Your task to perform on an android device: Search for flights from Mexico city to Zurich Image 0: 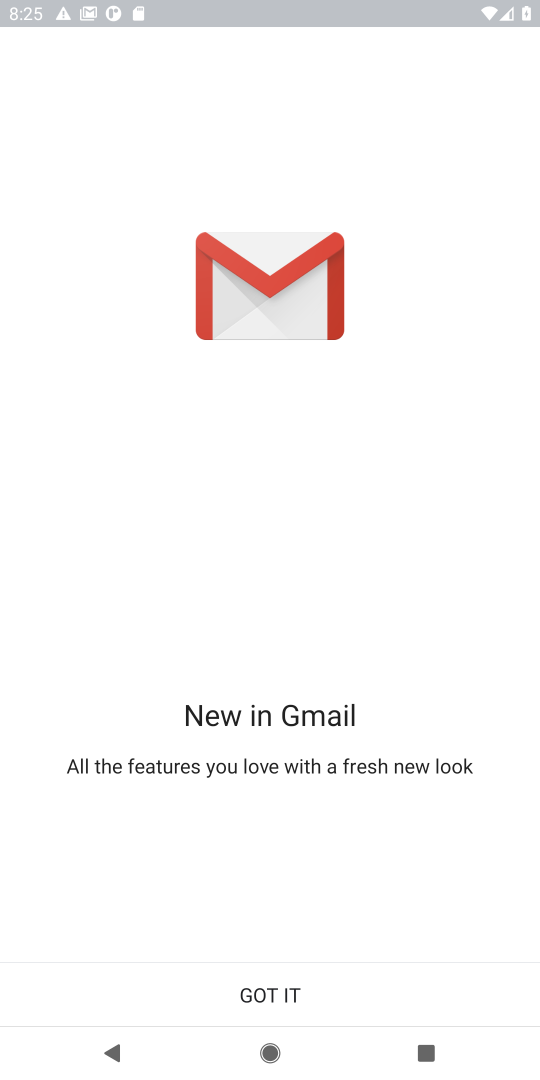
Step 0: press home button
Your task to perform on an android device: Search for flights from Mexico city to Zurich Image 1: 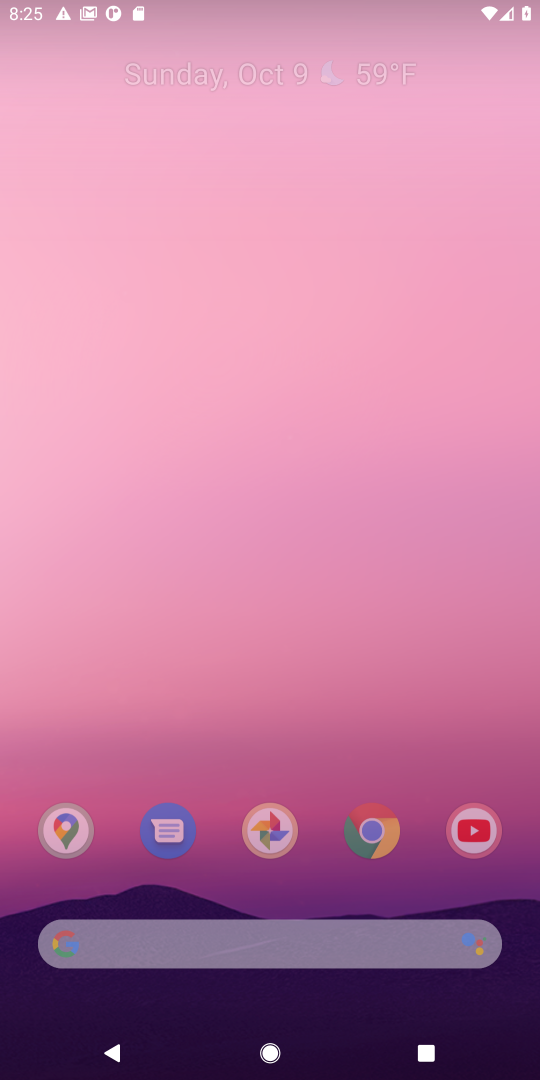
Step 1: press home button
Your task to perform on an android device: Search for flights from Mexico city to Zurich Image 2: 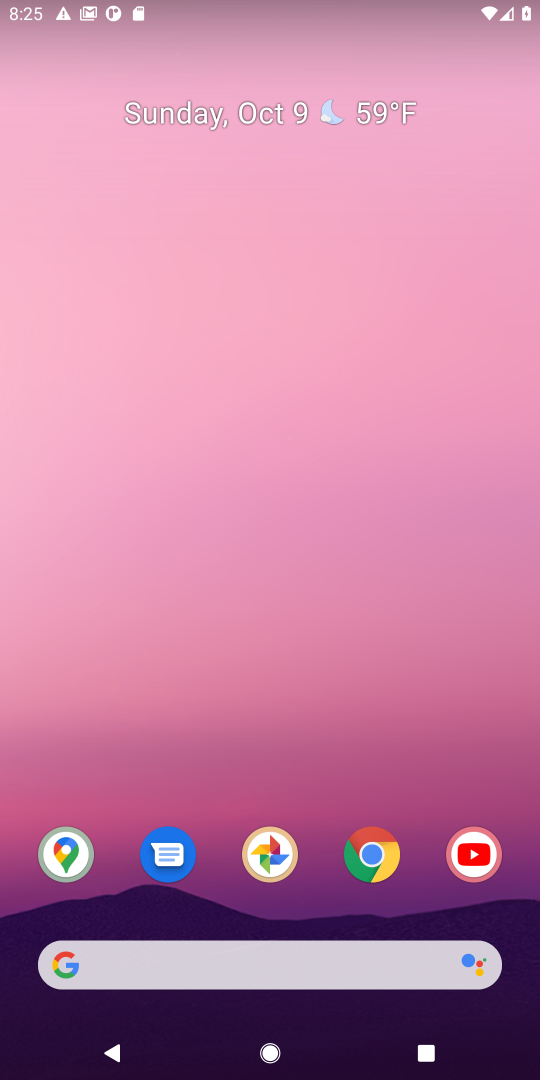
Step 2: drag from (297, 906) to (272, 46)
Your task to perform on an android device: Search for flights from Mexico city to Zurich Image 3: 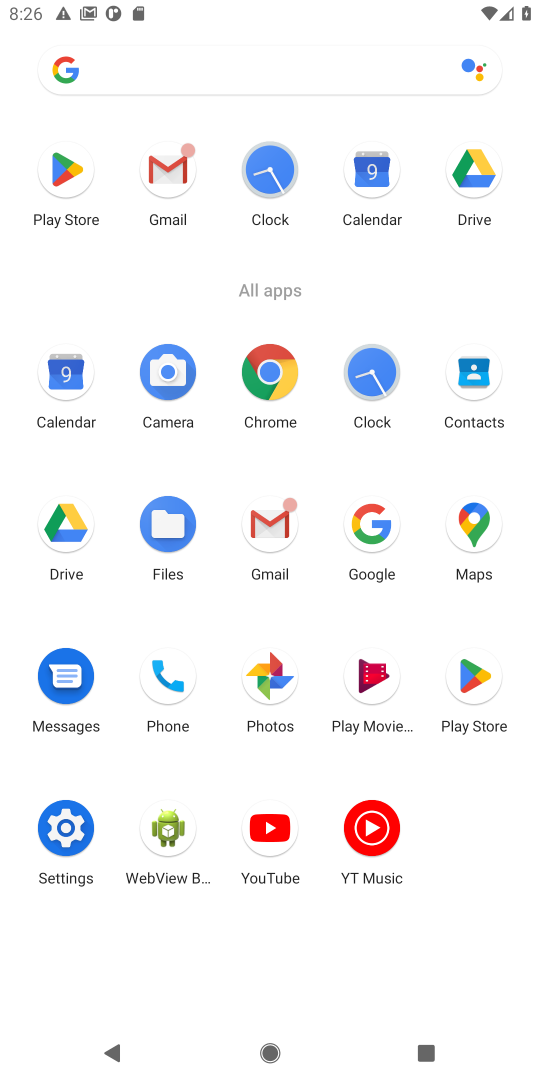
Step 3: click (274, 364)
Your task to perform on an android device: Search for flights from Mexico city to Zurich Image 4: 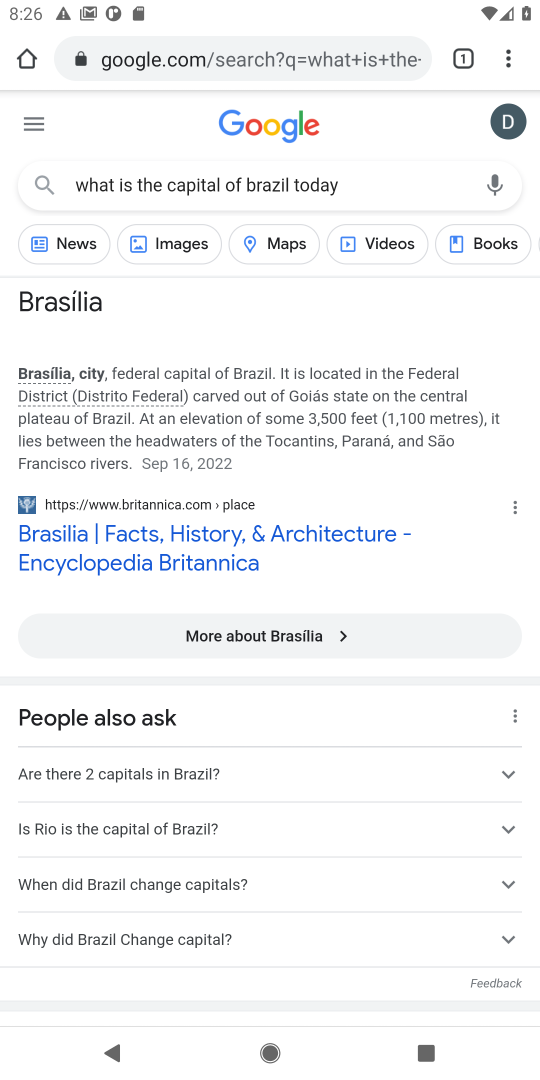
Step 4: click (366, 179)
Your task to perform on an android device: Search for flights from Mexico city to Zurich Image 5: 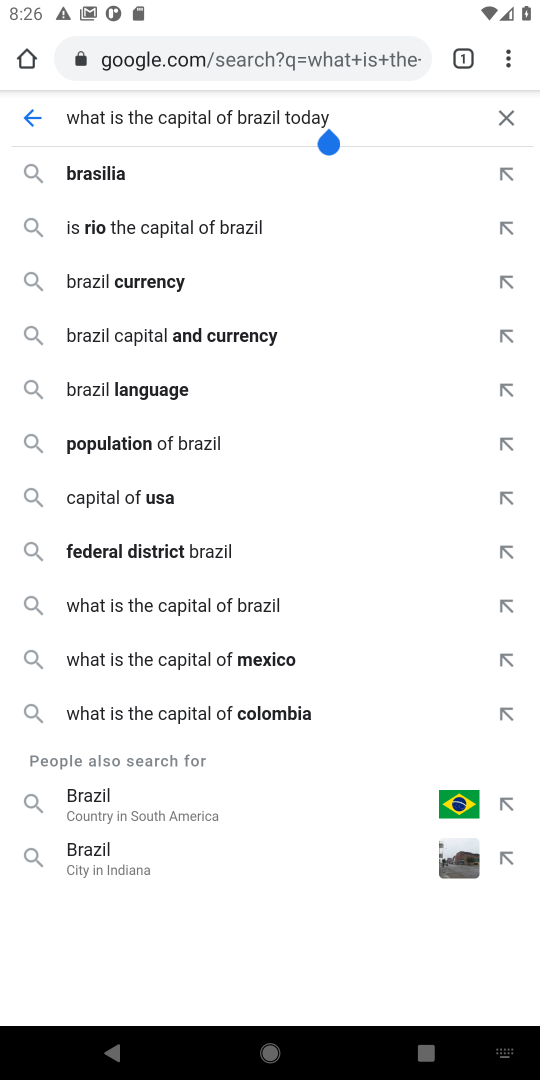
Step 5: click (504, 118)
Your task to perform on an android device: Search for flights from Mexico city to Zurich Image 6: 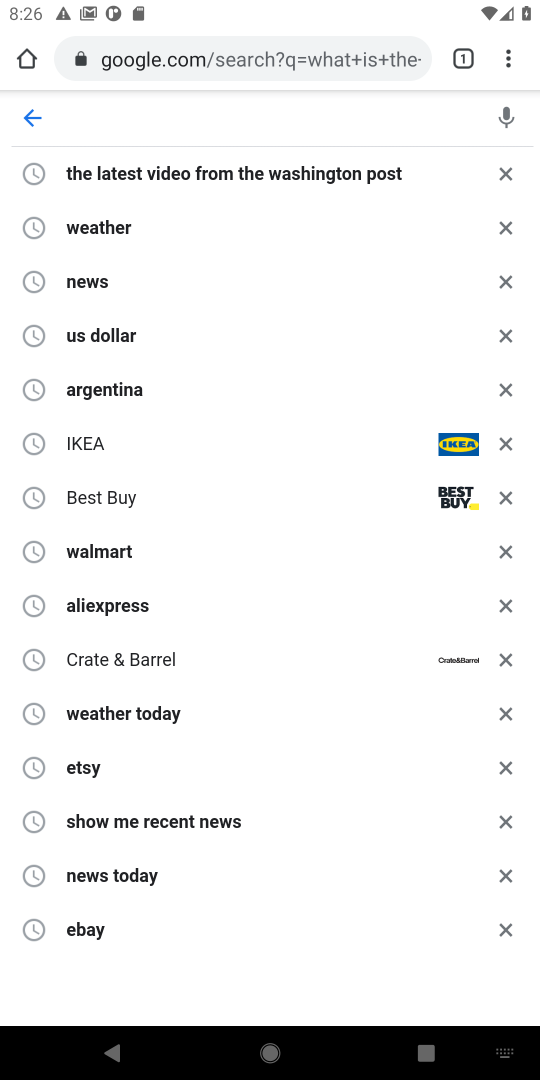
Step 6: type "flights from Mexico city to Zurich"
Your task to perform on an android device: Search for flights from Mexico city to Zurich Image 7: 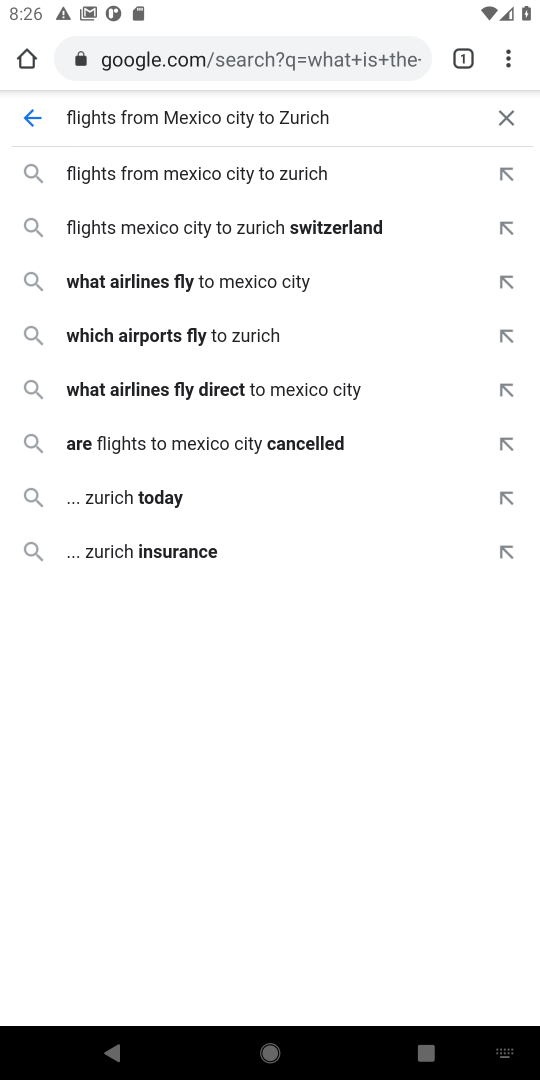
Step 7: click (228, 173)
Your task to perform on an android device: Search for flights from Mexico city to Zurich Image 8: 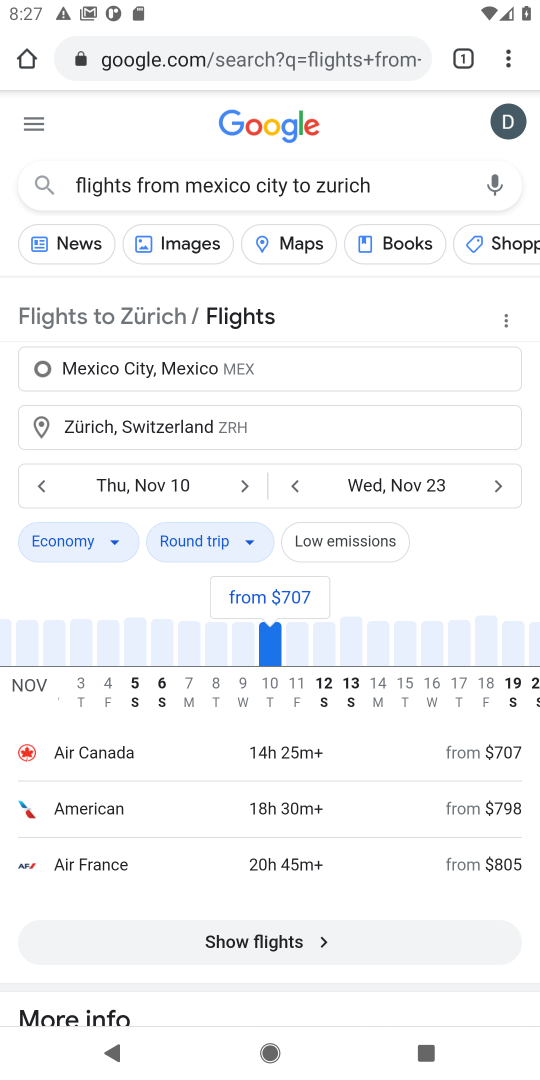
Step 8: task complete